Your task to perform on an android device: When is my next appointment? Image 0: 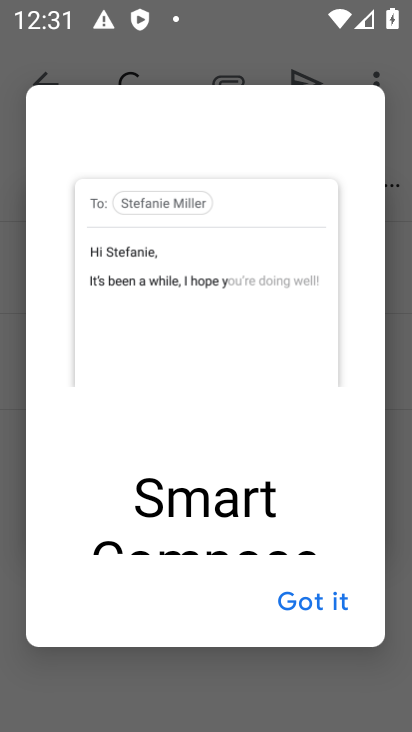
Step 0: press home button
Your task to perform on an android device: When is my next appointment? Image 1: 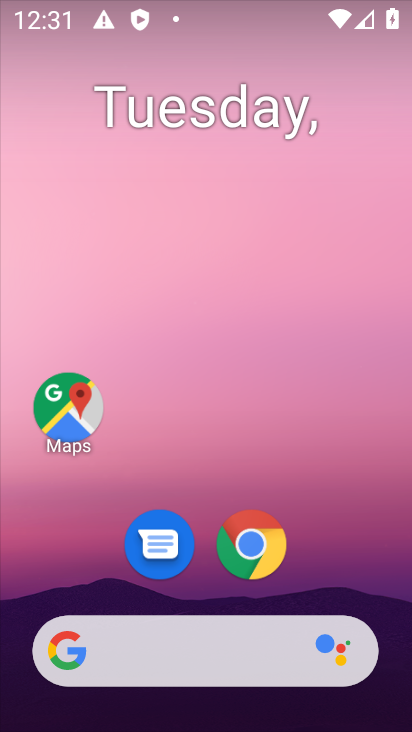
Step 1: click (208, 106)
Your task to perform on an android device: When is my next appointment? Image 2: 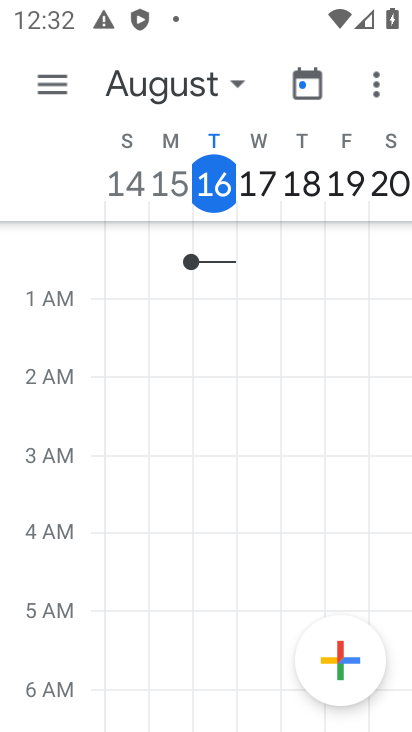
Step 2: task complete